Your task to perform on an android device: check battery use Image 0: 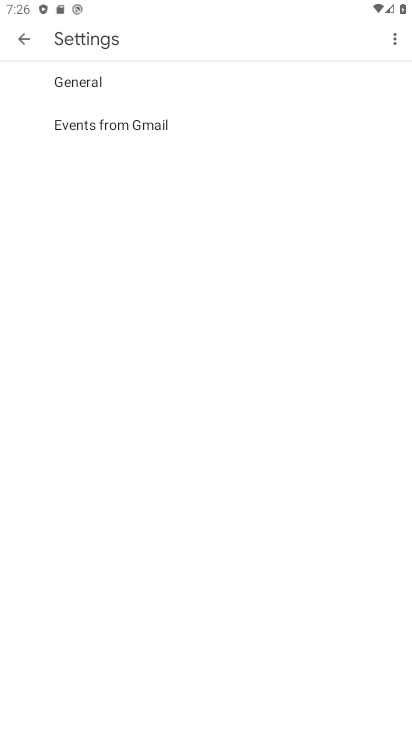
Step 0: press home button
Your task to perform on an android device: check battery use Image 1: 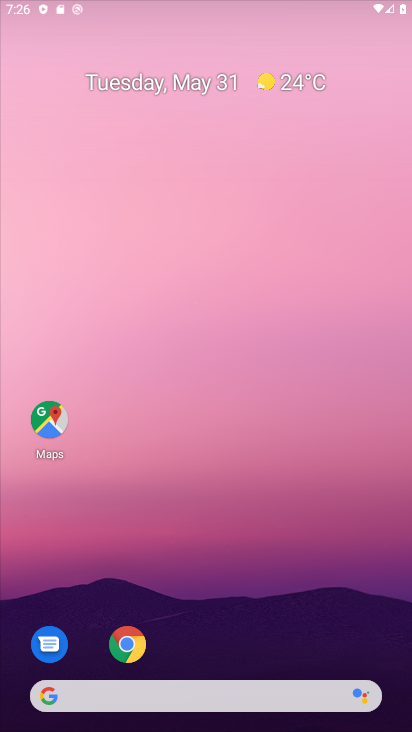
Step 1: drag from (337, 557) to (325, 242)
Your task to perform on an android device: check battery use Image 2: 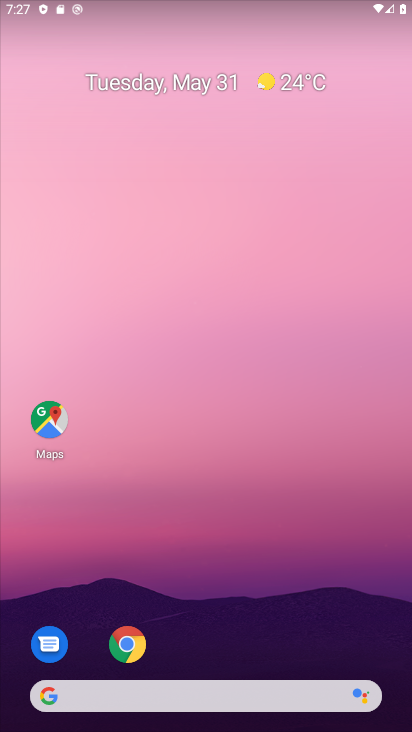
Step 2: drag from (312, 595) to (284, 93)
Your task to perform on an android device: check battery use Image 3: 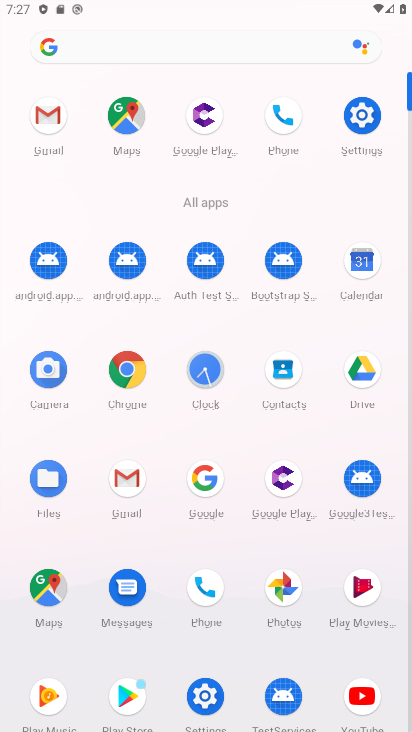
Step 3: click (346, 118)
Your task to perform on an android device: check battery use Image 4: 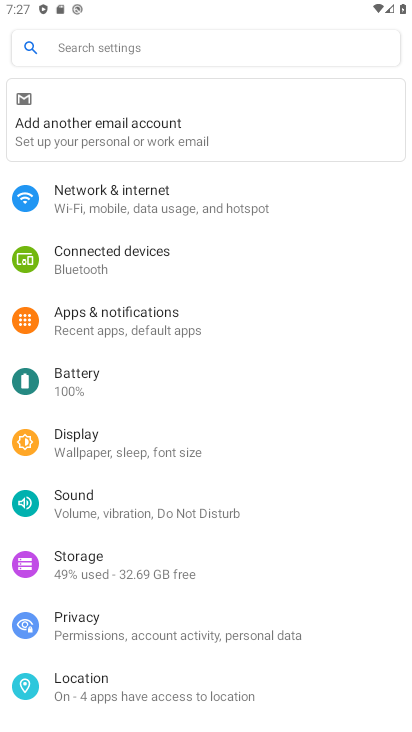
Step 4: click (151, 371)
Your task to perform on an android device: check battery use Image 5: 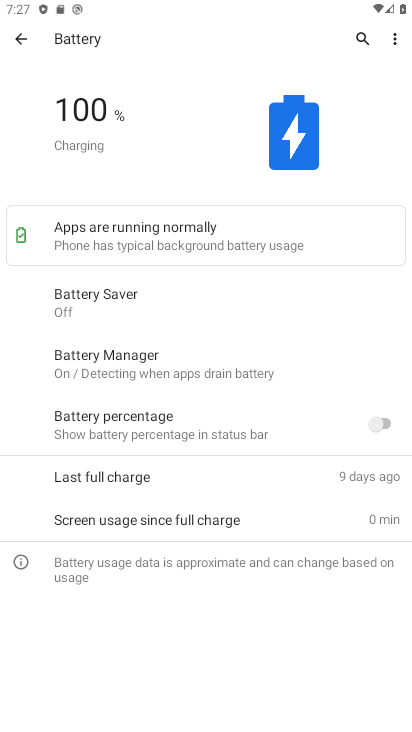
Step 5: task complete